Your task to perform on an android device: Search for "lg ultragear" on ebay.com, select the first entry, and add it to the cart. Image 0: 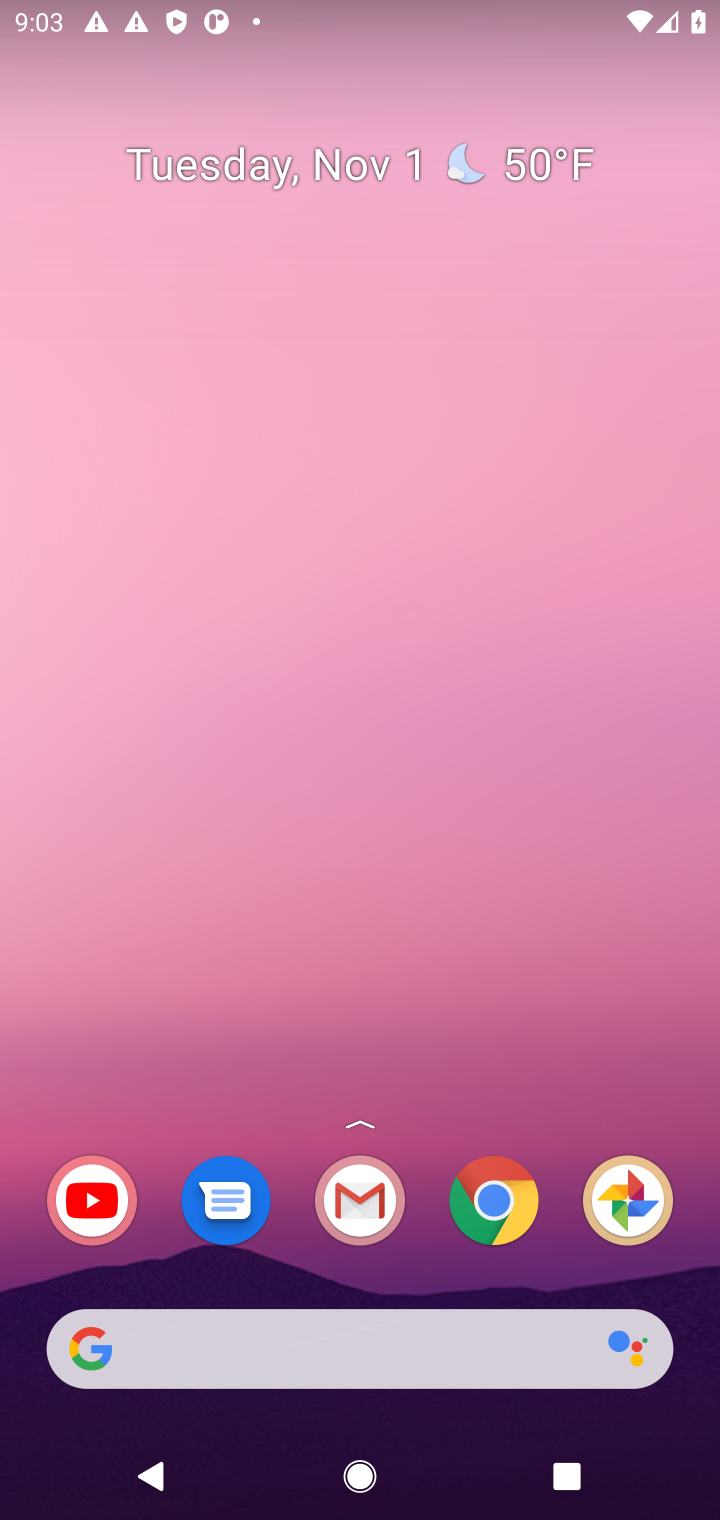
Step 0: click (301, 1357)
Your task to perform on an android device: Search for "lg ultragear" on ebay.com, select the first entry, and add it to the cart. Image 1: 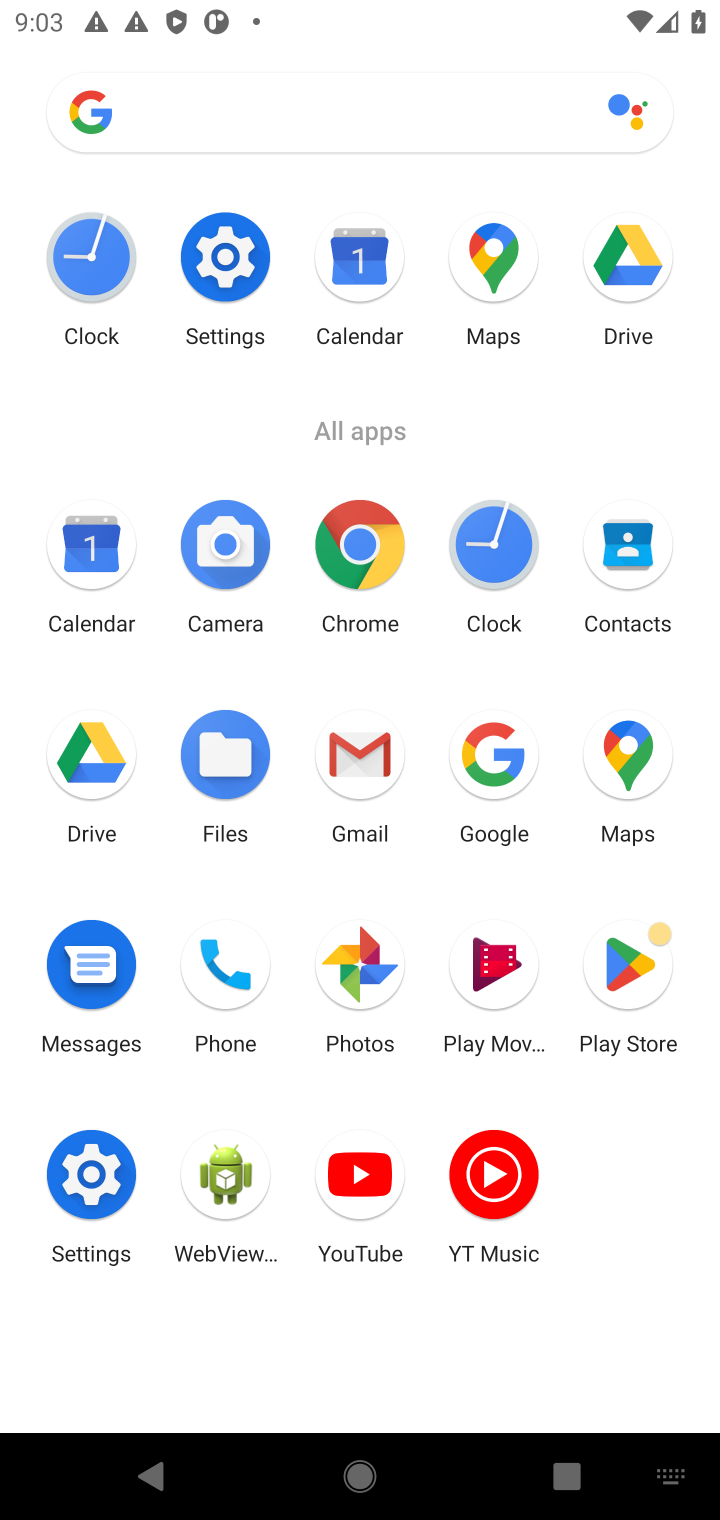
Step 1: click (96, 107)
Your task to perform on an android device: Search for "lg ultragear" on ebay.com, select the first entry, and add it to the cart. Image 2: 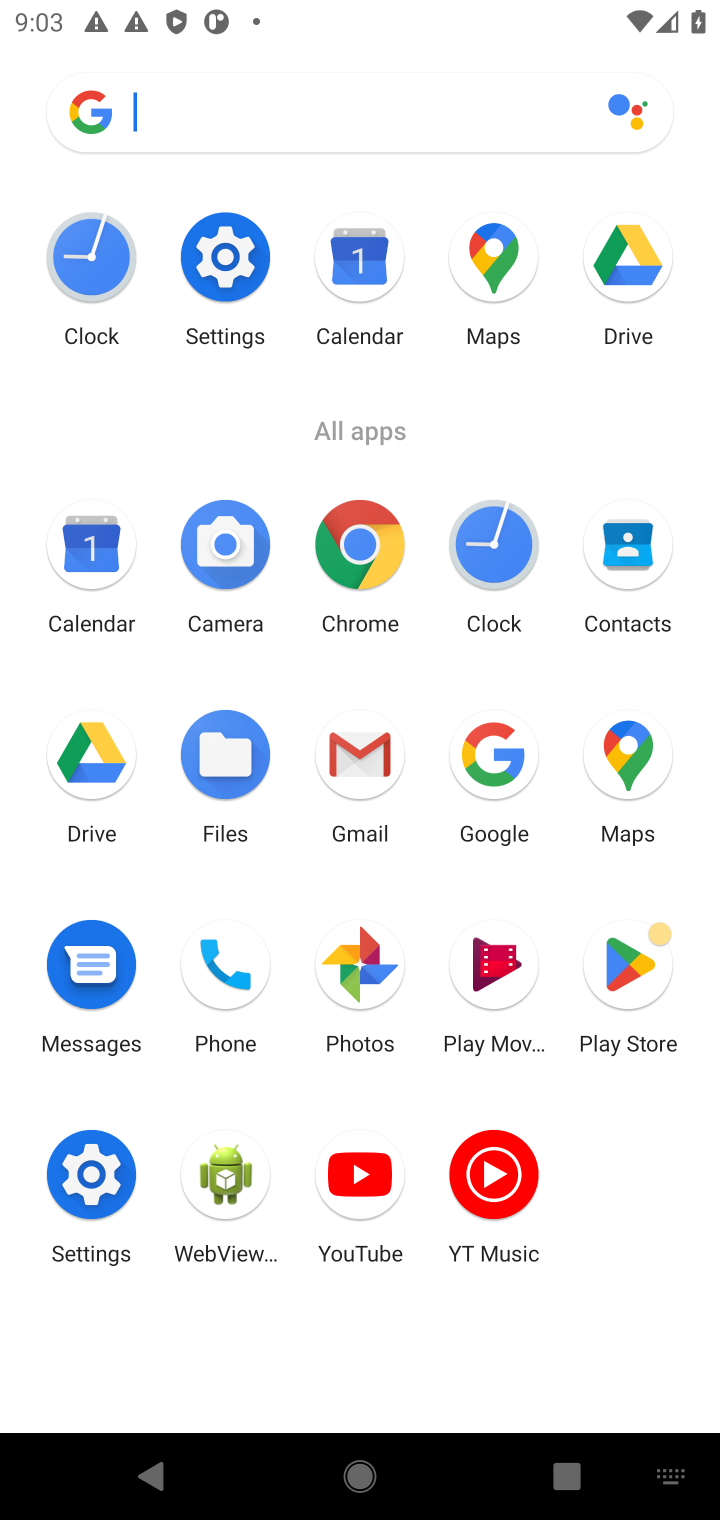
Step 2: click (456, 795)
Your task to perform on an android device: Search for "lg ultragear" on ebay.com, select the first entry, and add it to the cart. Image 3: 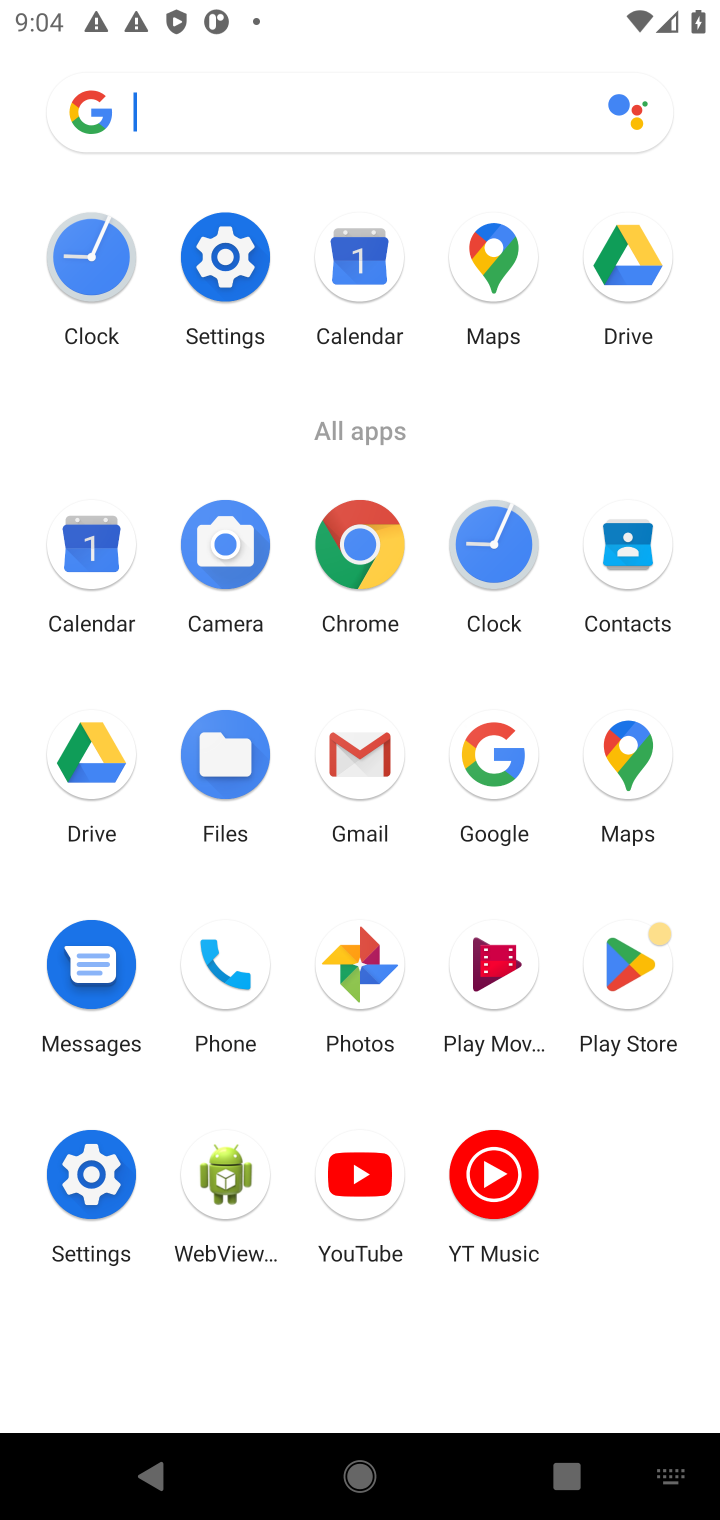
Step 3: click (463, 796)
Your task to perform on an android device: Search for "lg ultragear" on ebay.com, select the first entry, and add it to the cart. Image 4: 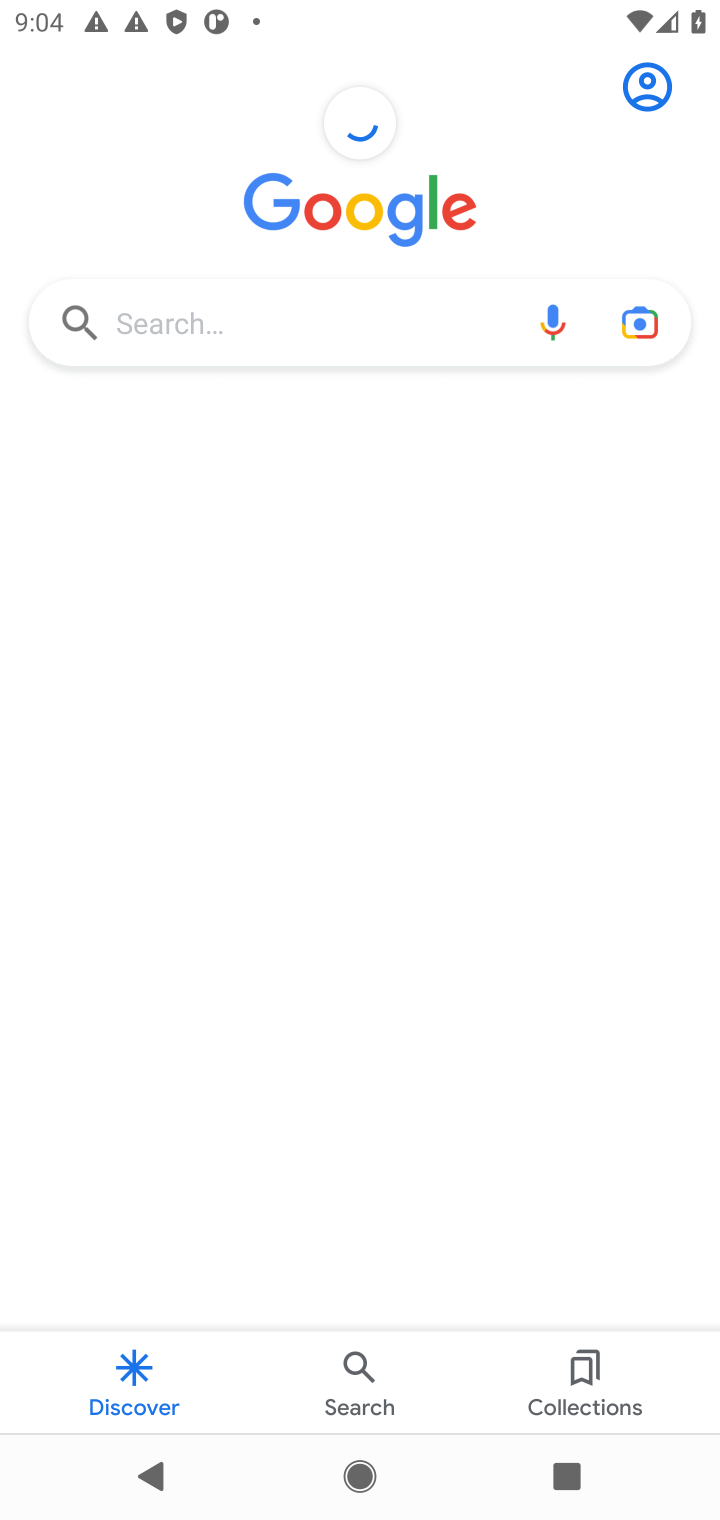
Step 4: click (157, 352)
Your task to perform on an android device: Search for "lg ultragear" on ebay.com, select the first entry, and add it to the cart. Image 5: 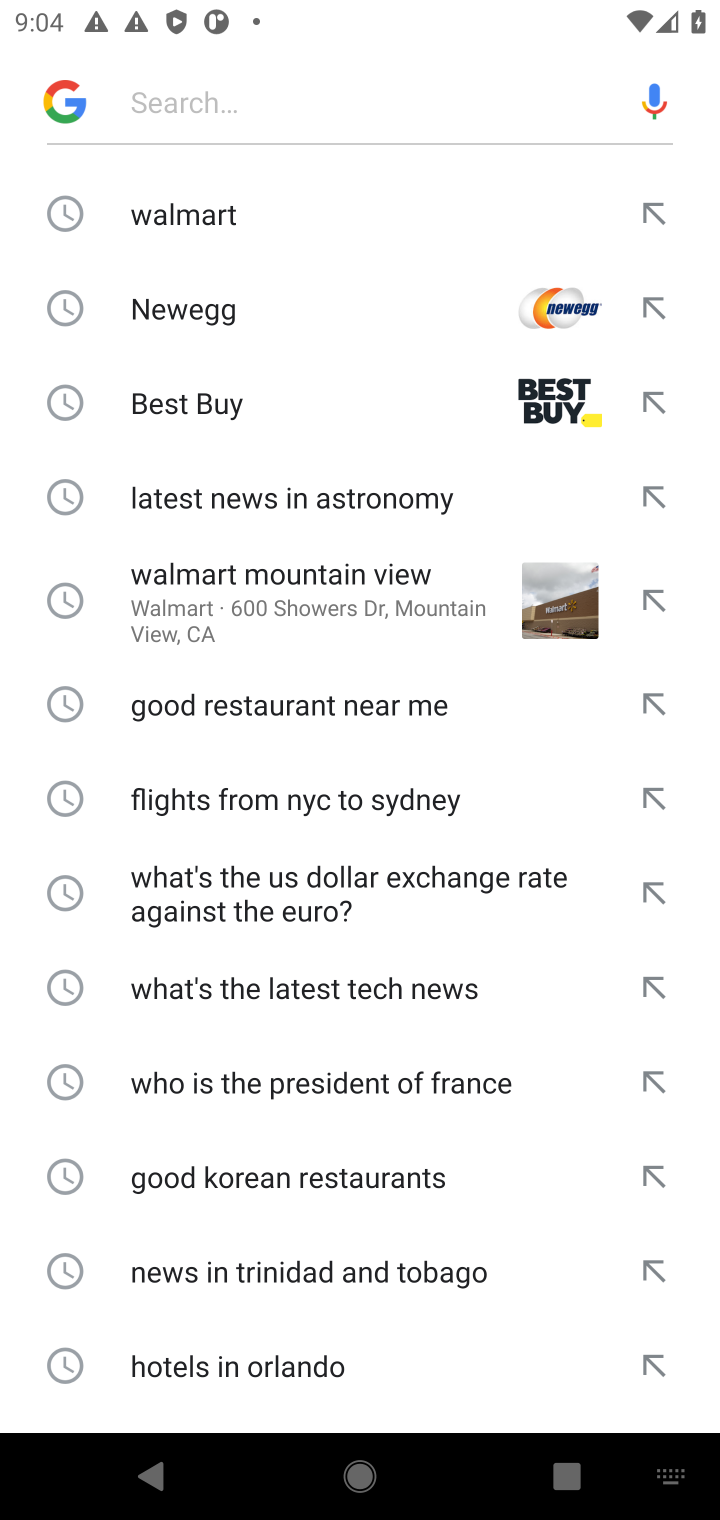
Step 5: type "ebay.com"
Your task to perform on an android device: Search for "lg ultragear" on ebay.com, select the first entry, and add it to the cart. Image 6: 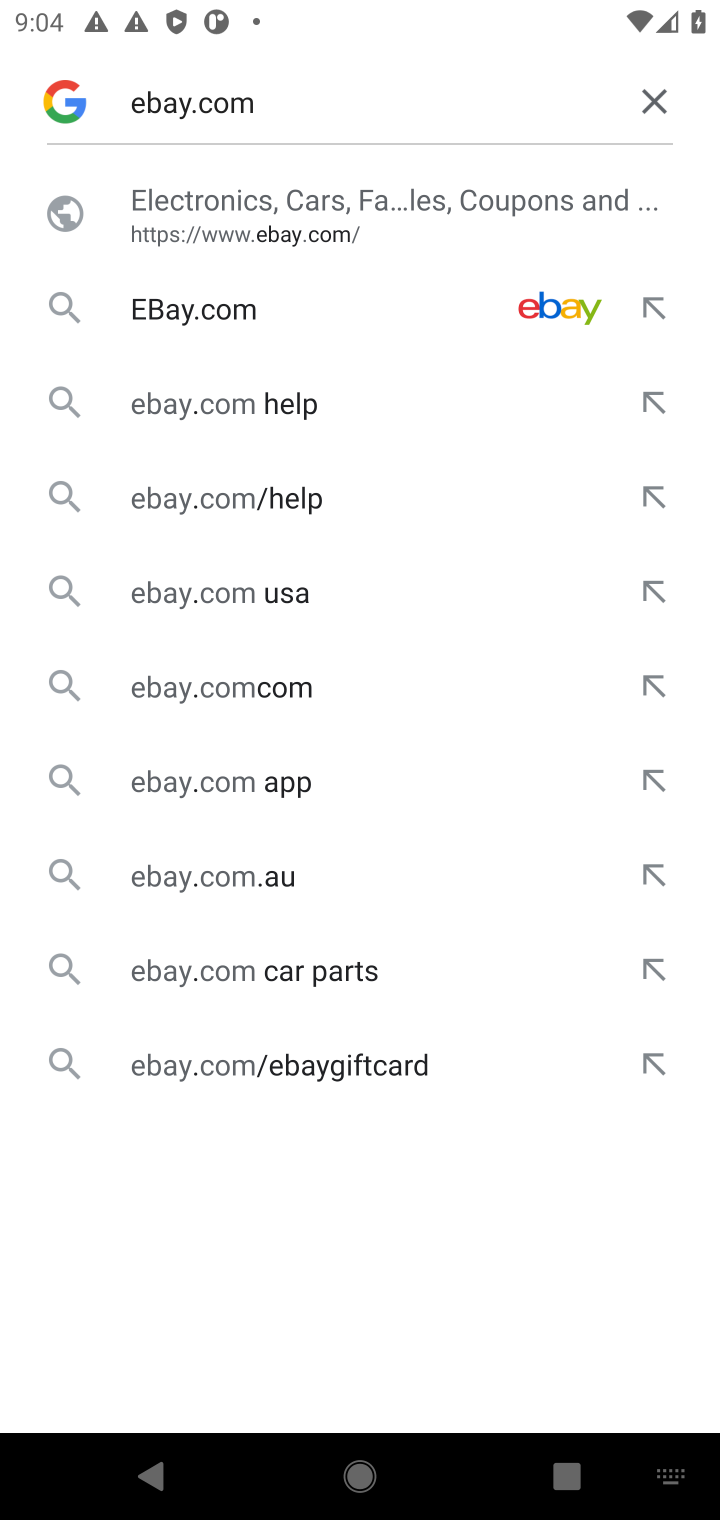
Step 6: click (244, 305)
Your task to perform on an android device: Search for "lg ultragear" on ebay.com, select the first entry, and add it to the cart. Image 7: 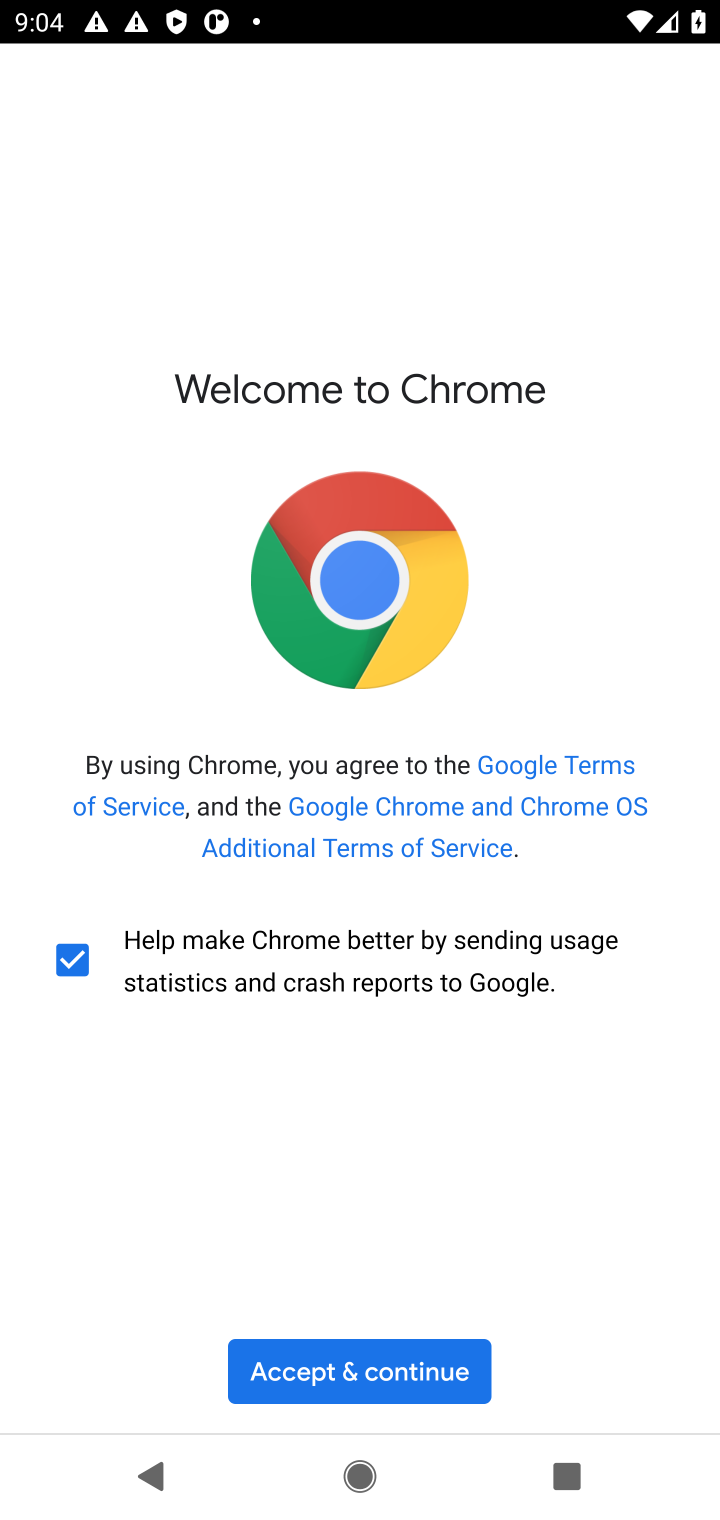
Step 7: click (341, 1392)
Your task to perform on an android device: Search for "lg ultragear" on ebay.com, select the first entry, and add it to the cart. Image 8: 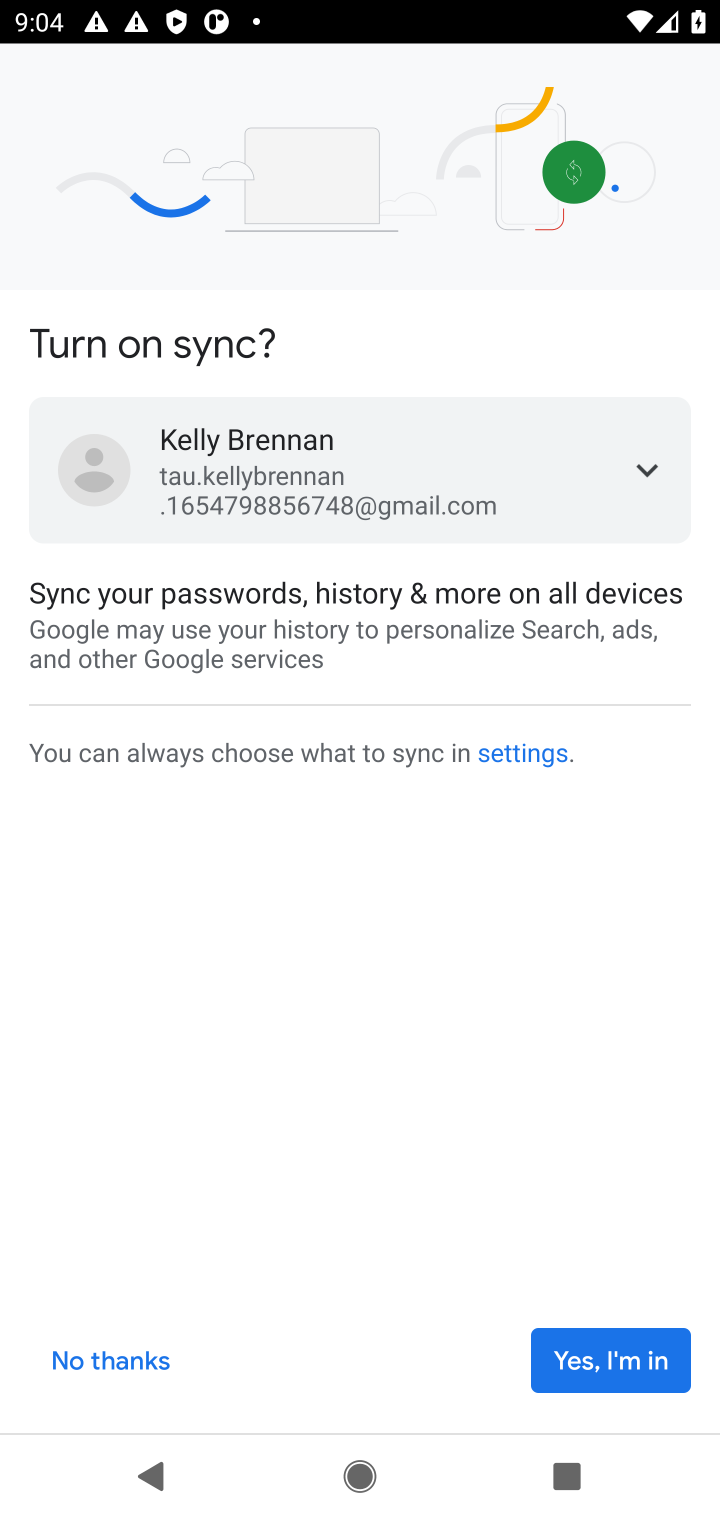
Step 8: click (594, 1380)
Your task to perform on an android device: Search for "lg ultragear" on ebay.com, select the first entry, and add it to the cart. Image 9: 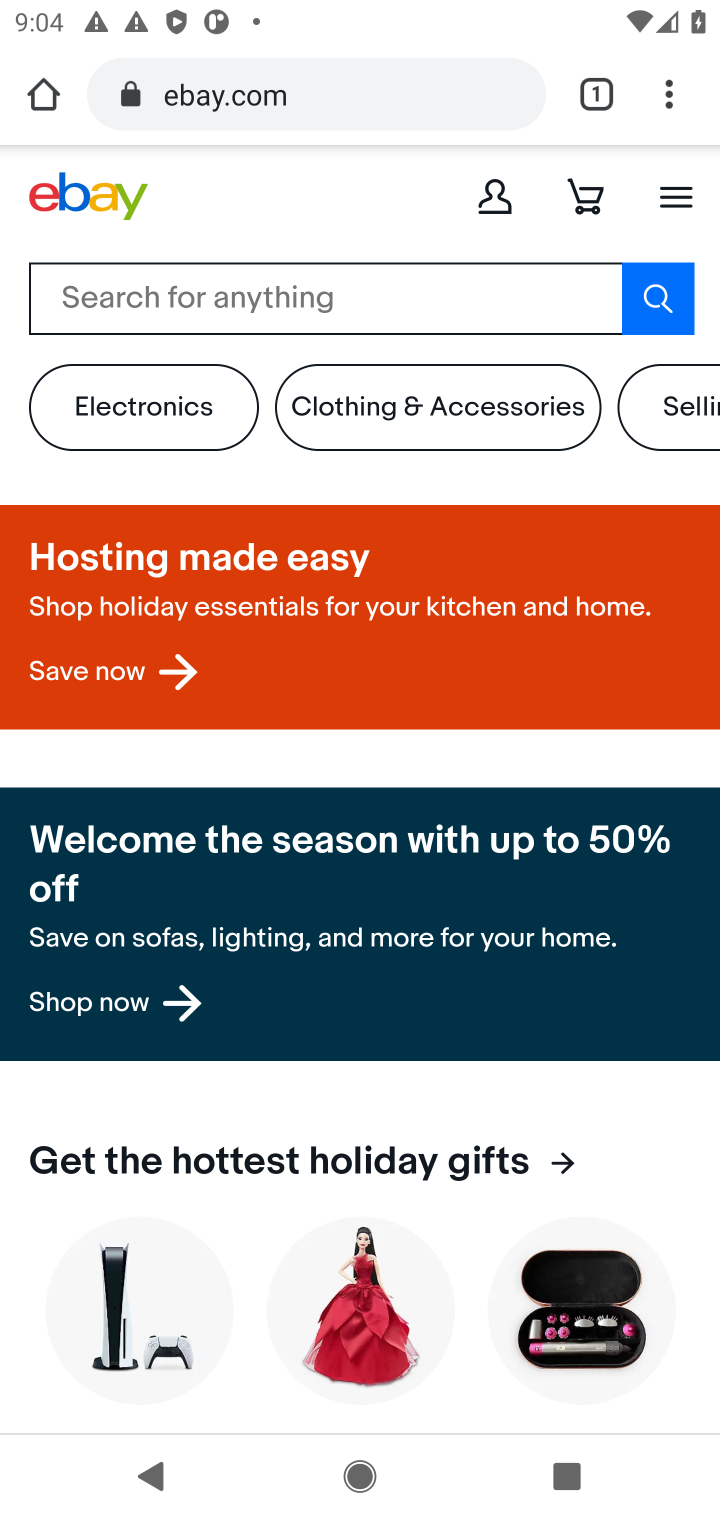
Step 9: click (316, 274)
Your task to perform on an android device: Search for "lg ultragear" on ebay.com, select the first entry, and add it to the cart. Image 10: 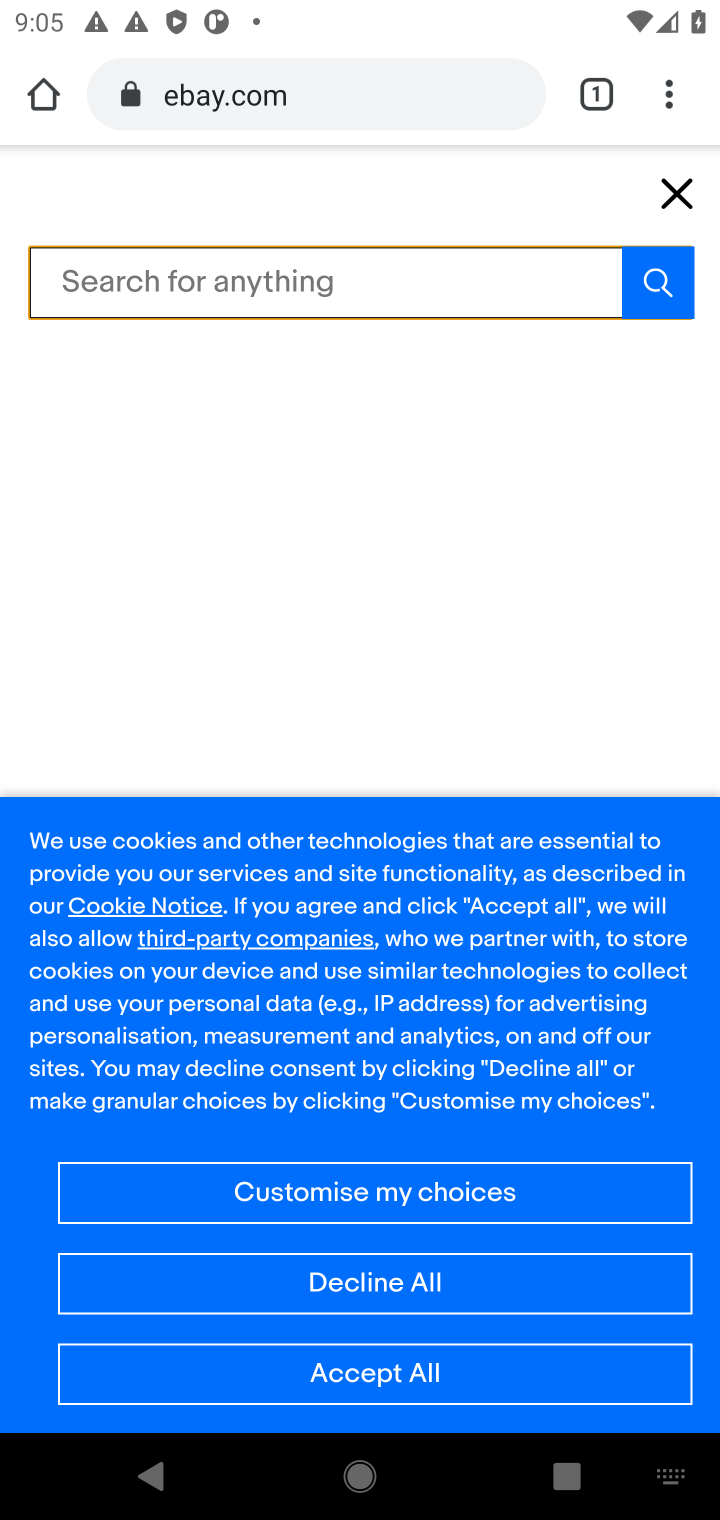
Step 10: type "lg ultragear"
Your task to perform on an android device: Search for "lg ultragear" on ebay.com, select the first entry, and add it to the cart. Image 11: 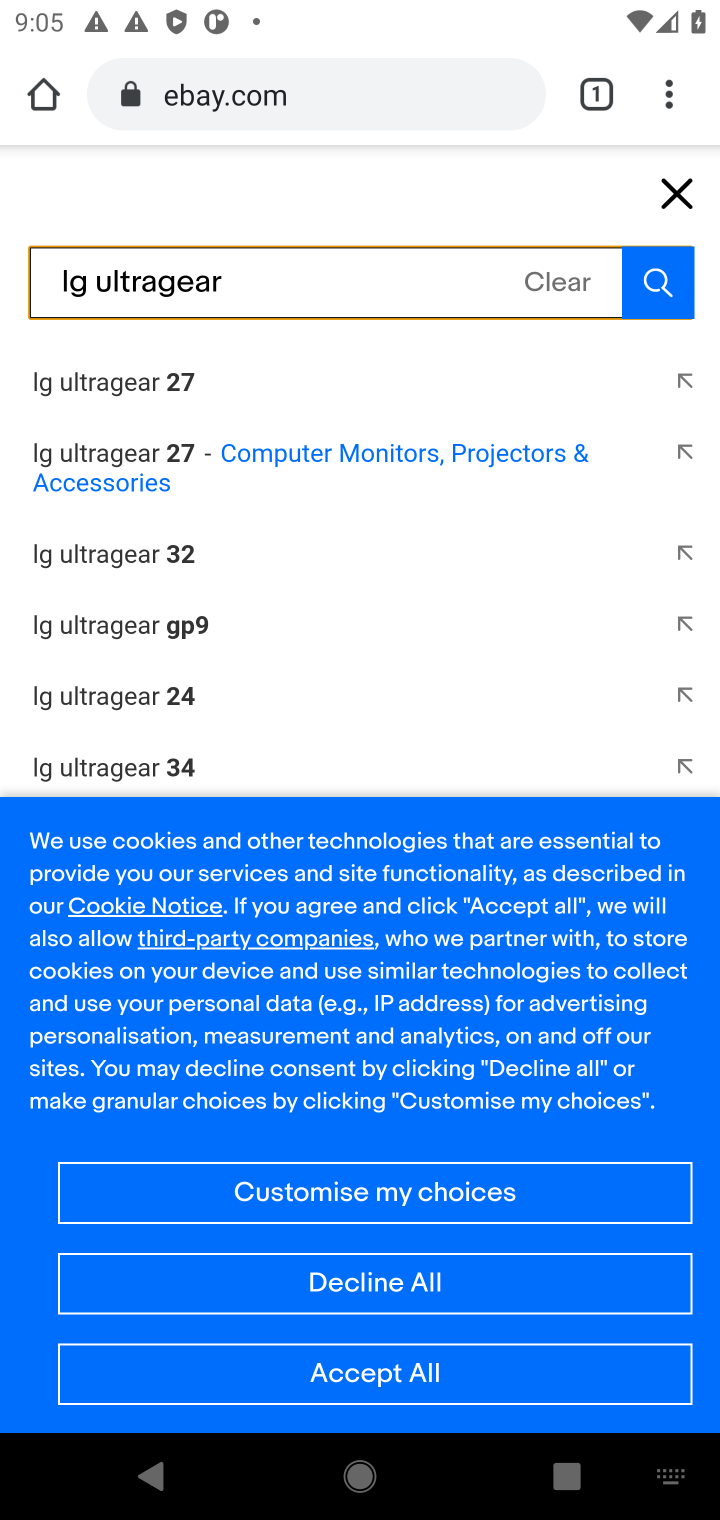
Step 11: click (668, 278)
Your task to perform on an android device: Search for "lg ultragear" on ebay.com, select the first entry, and add it to the cart. Image 12: 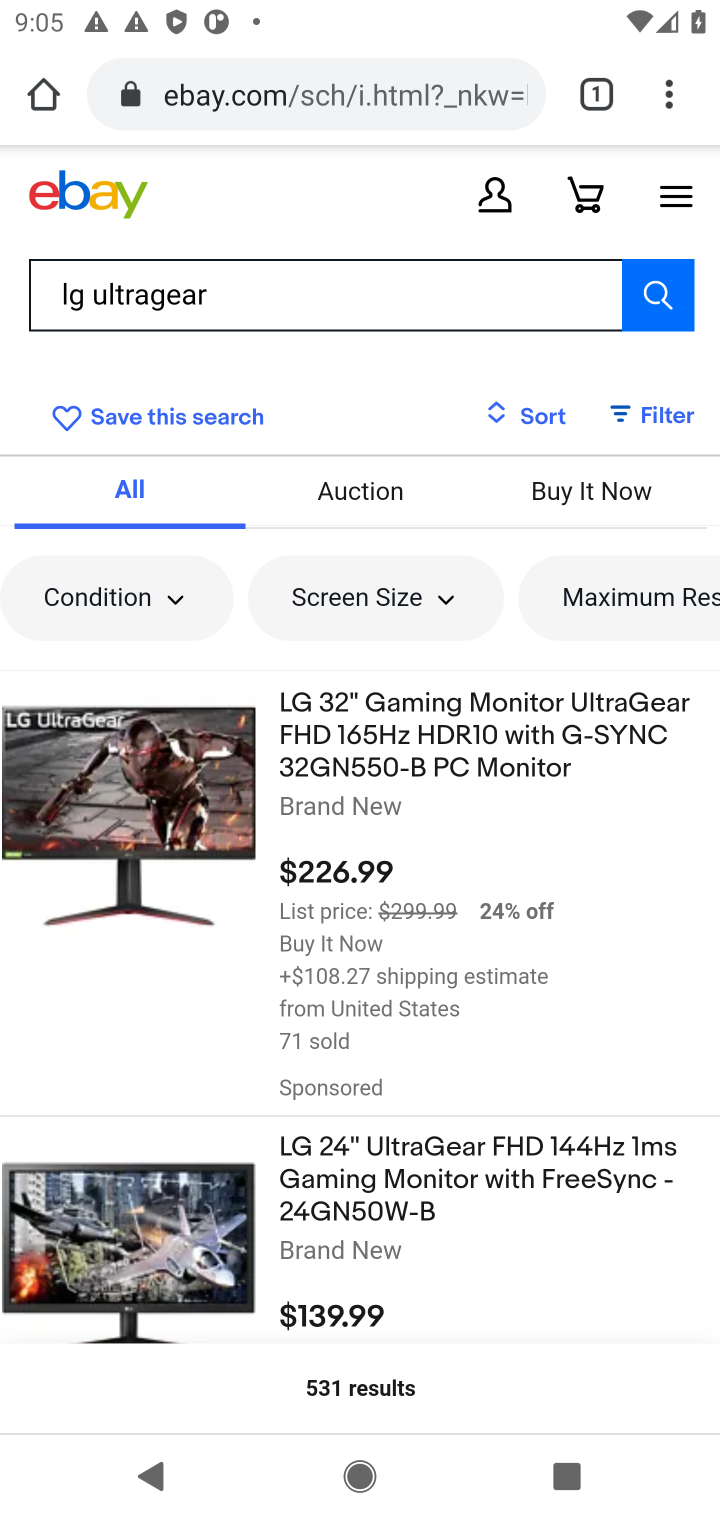
Step 12: click (405, 790)
Your task to perform on an android device: Search for "lg ultragear" on ebay.com, select the first entry, and add it to the cart. Image 13: 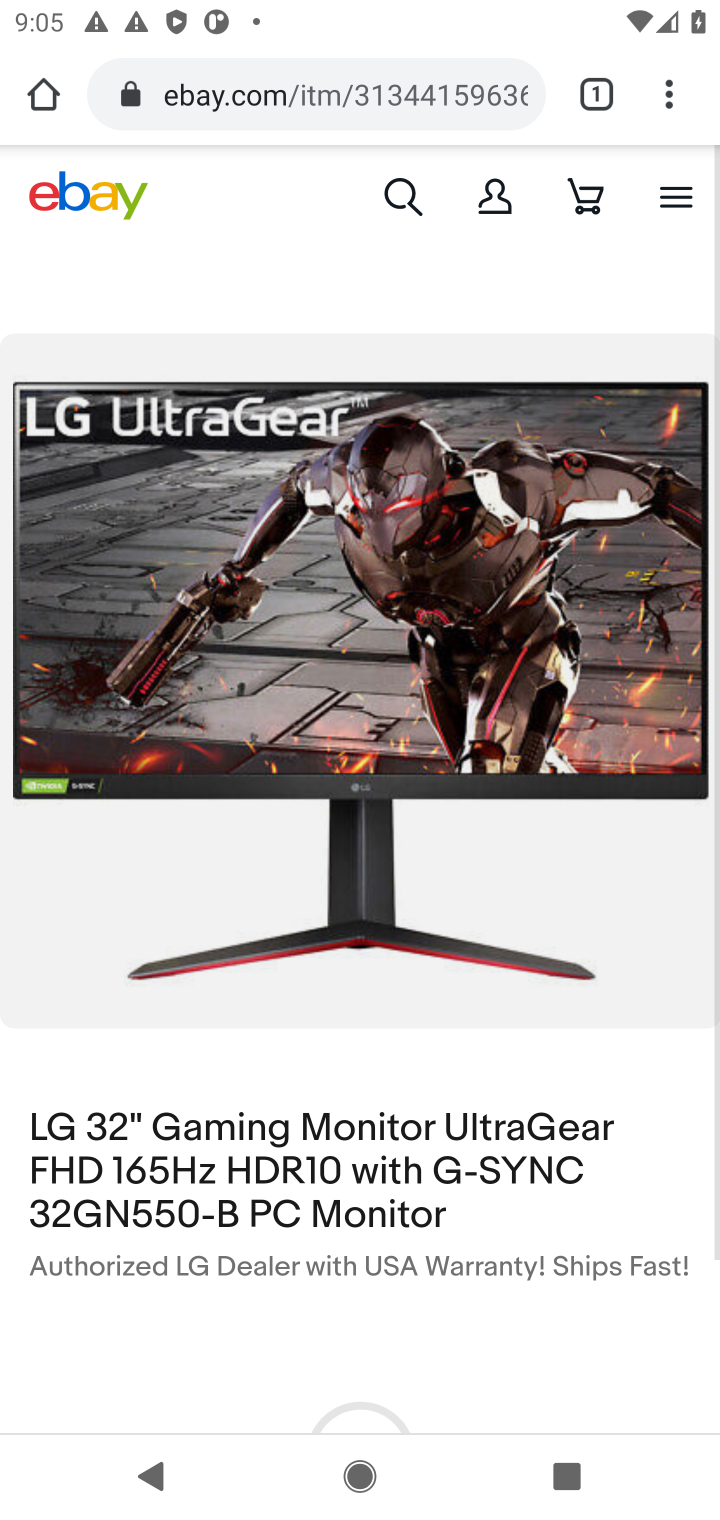
Step 13: drag from (459, 1095) to (490, 467)
Your task to perform on an android device: Search for "lg ultragear" on ebay.com, select the first entry, and add it to the cart. Image 14: 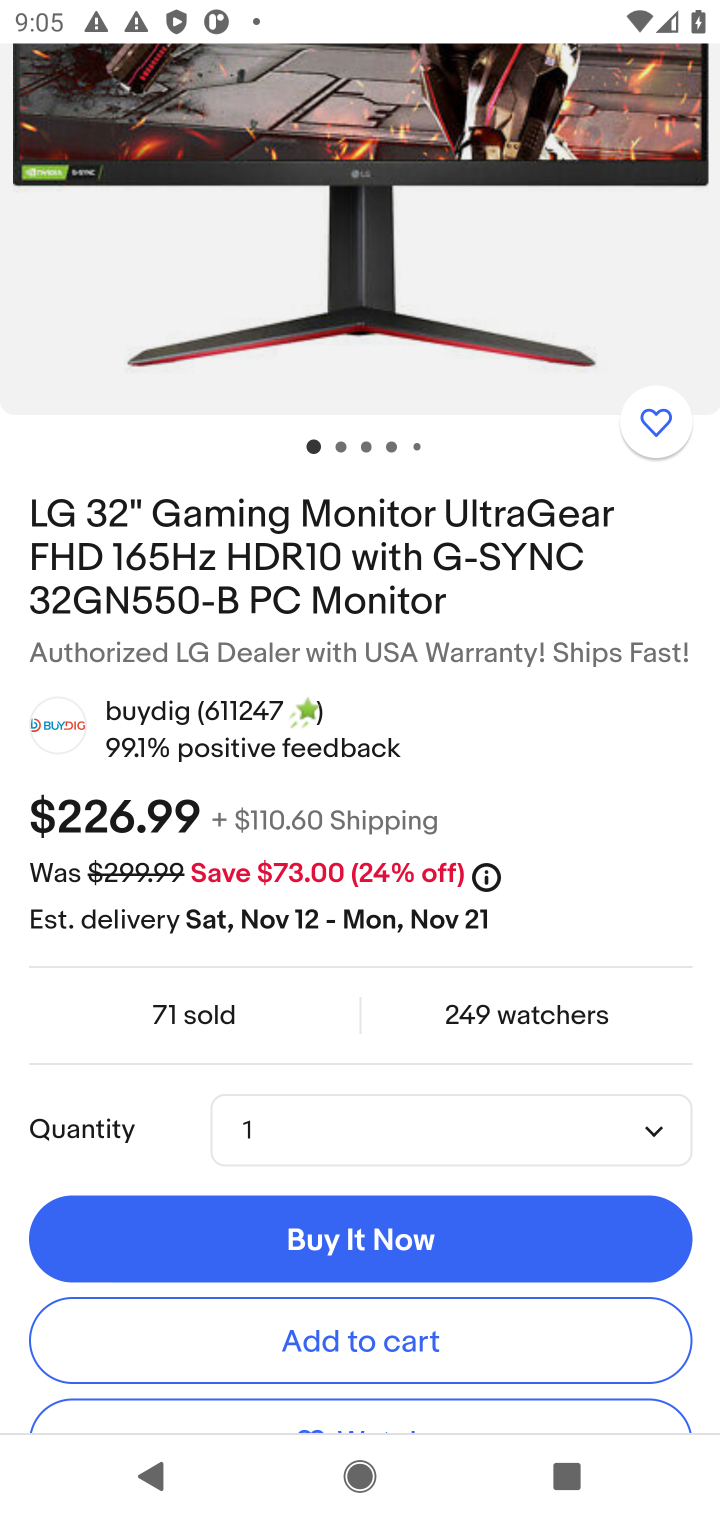
Step 14: drag from (387, 1197) to (387, 930)
Your task to perform on an android device: Search for "lg ultragear" on ebay.com, select the first entry, and add it to the cart. Image 15: 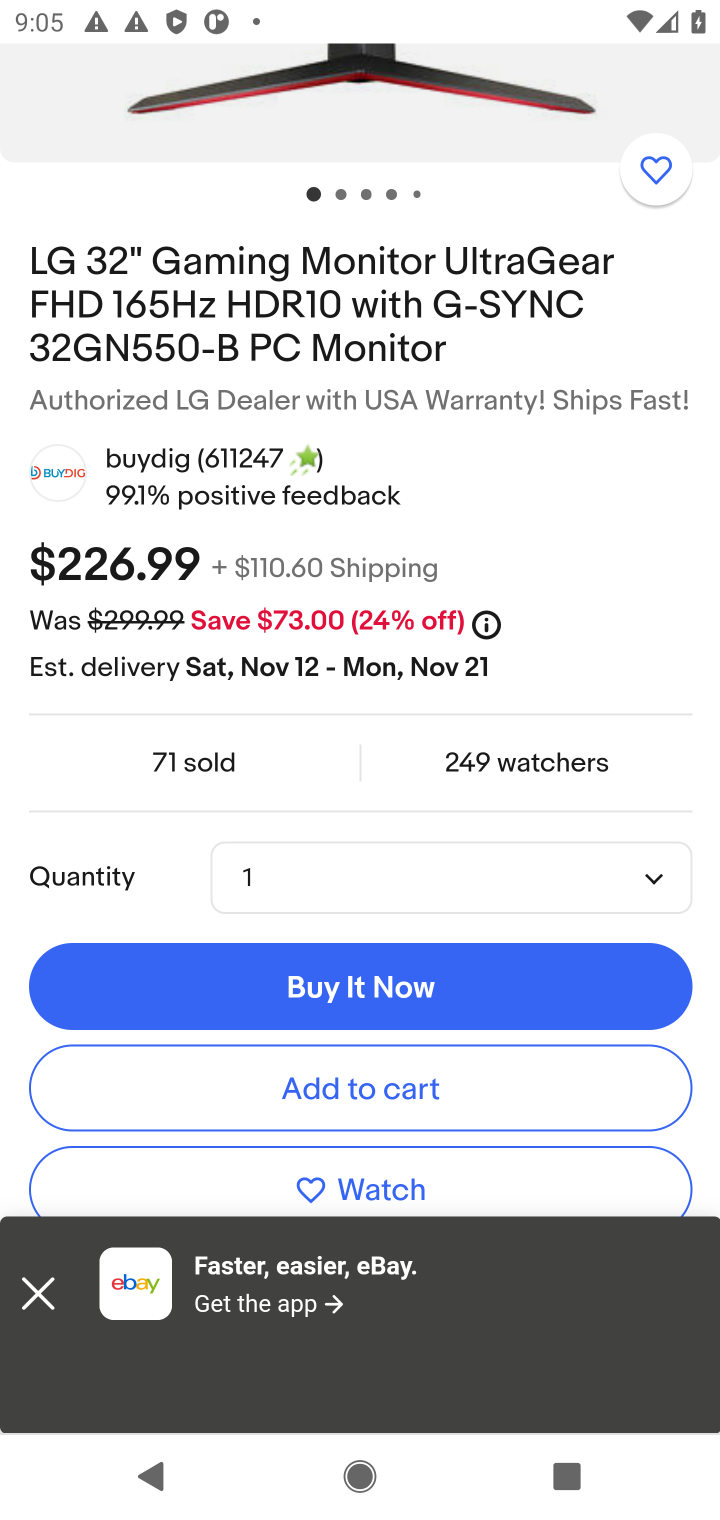
Step 15: click (377, 1090)
Your task to perform on an android device: Search for "lg ultragear" on ebay.com, select the first entry, and add it to the cart. Image 16: 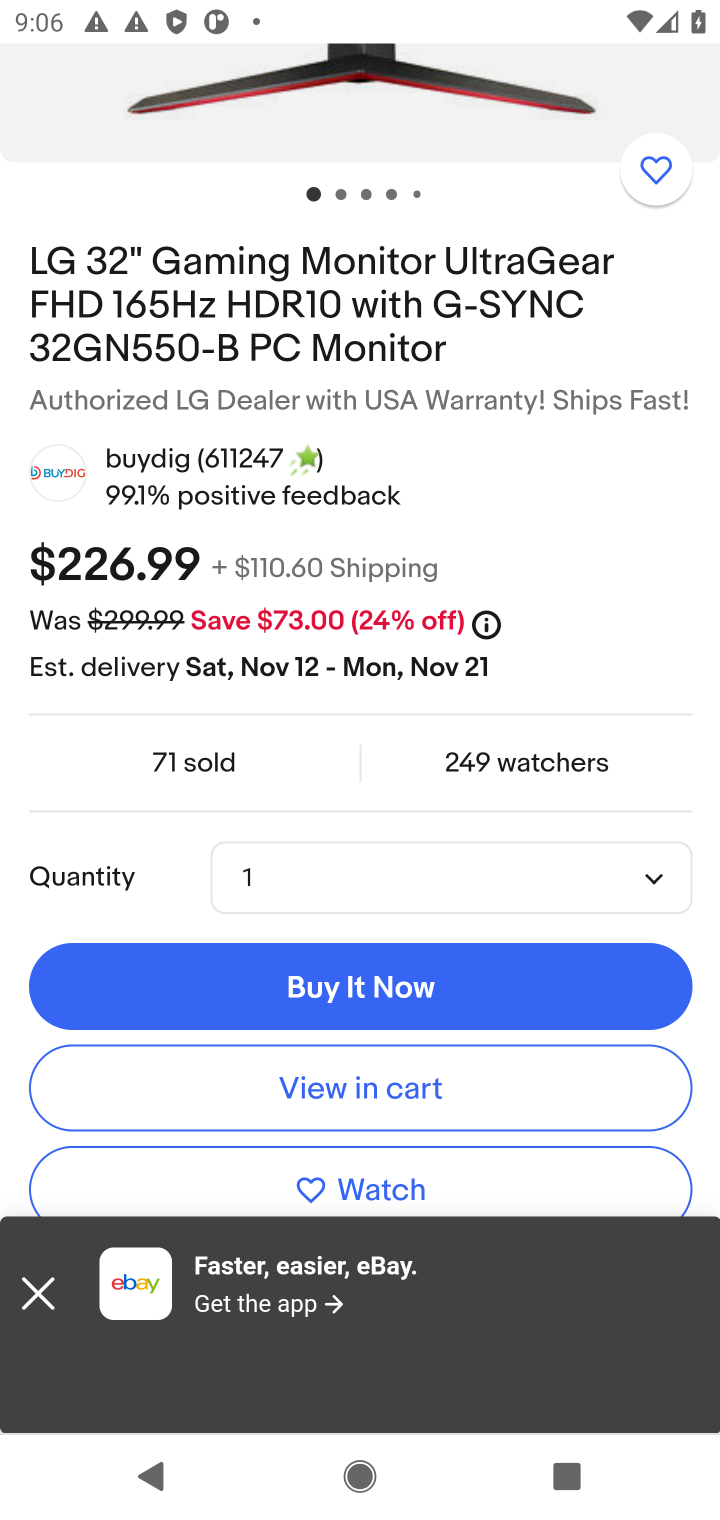
Step 16: task complete